Your task to perform on an android device: open chrome and create a bookmark for the current page Image 0: 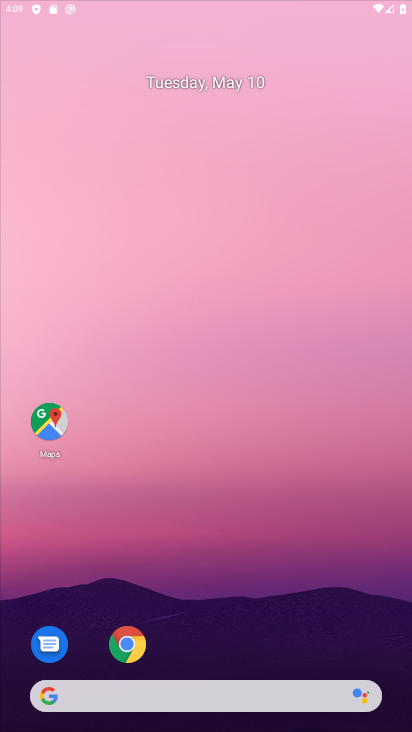
Step 0: click (159, 415)
Your task to perform on an android device: open chrome and create a bookmark for the current page Image 1: 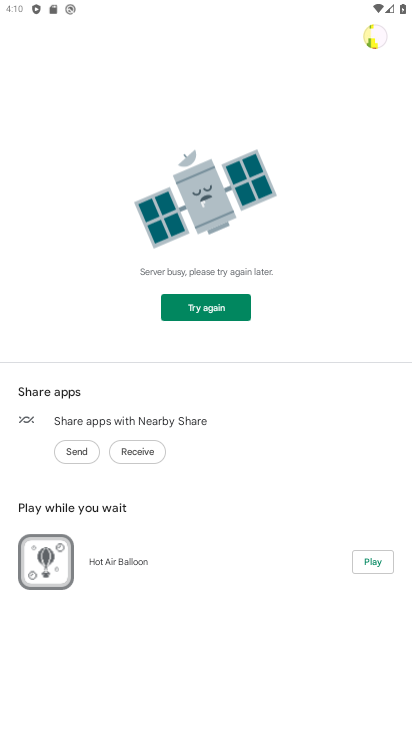
Step 1: press home button
Your task to perform on an android device: open chrome and create a bookmark for the current page Image 2: 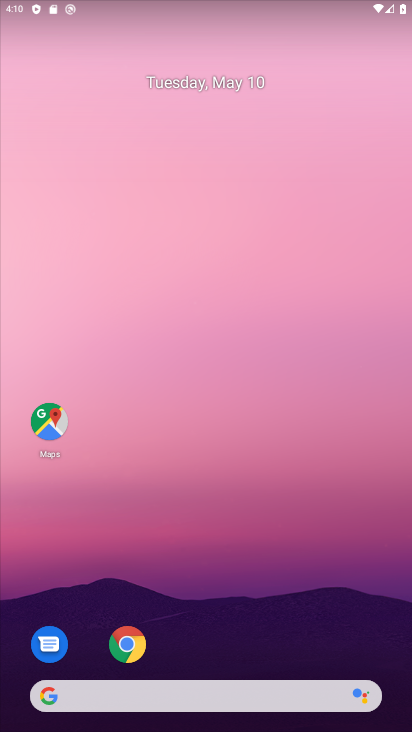
Step 2: click (131, 656)
Your task to perform on an android device: open chrome and create a bookmark for the current page Image 3: 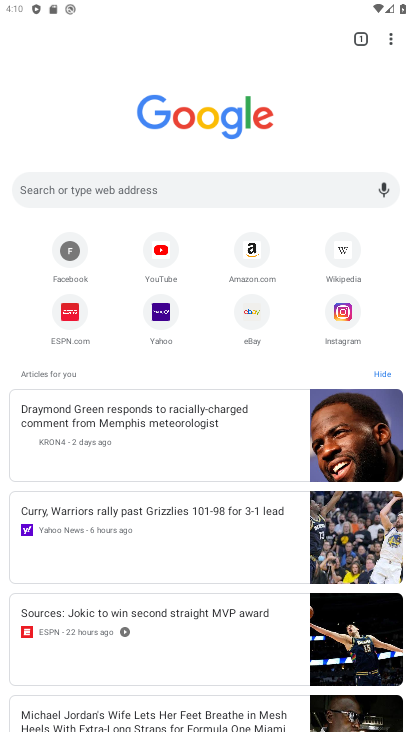
Step 3: click (397, 34)
Your task to perform on an android device: open chrome and create a bookmark for the current page Image 4: 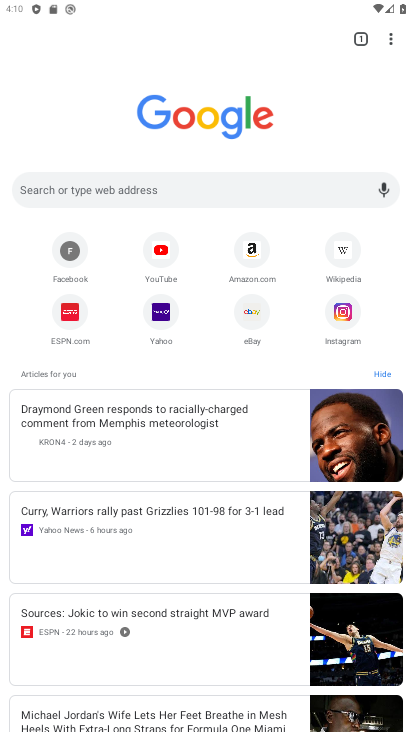
Step 4: click (388, 35)
Your task to perform on an android device: open chrome and create a bookmark for the current page Image 5: 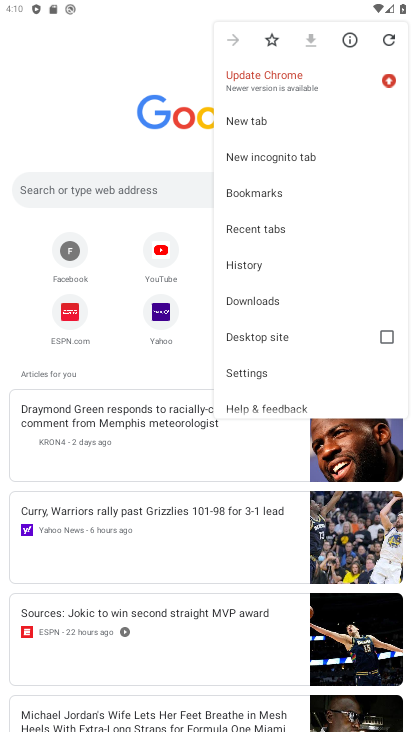
Step 5: click (270, 38)
Your task to perform on an android device: open chrome and create a bookmark for the current page Image 6: 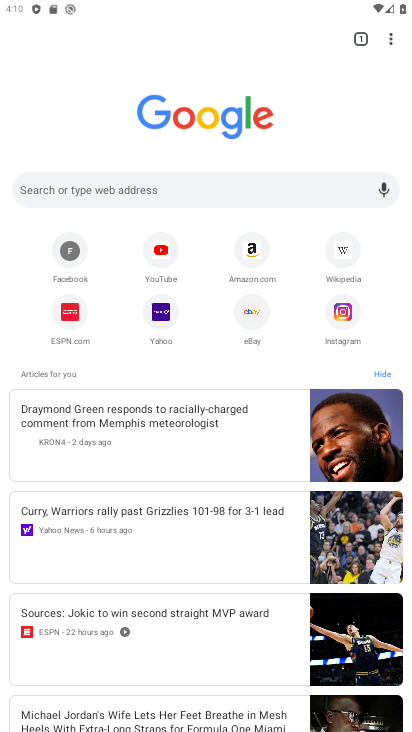
Step 6: task complete